Your task to perform on an android device: Go to CNN.com Image 0: 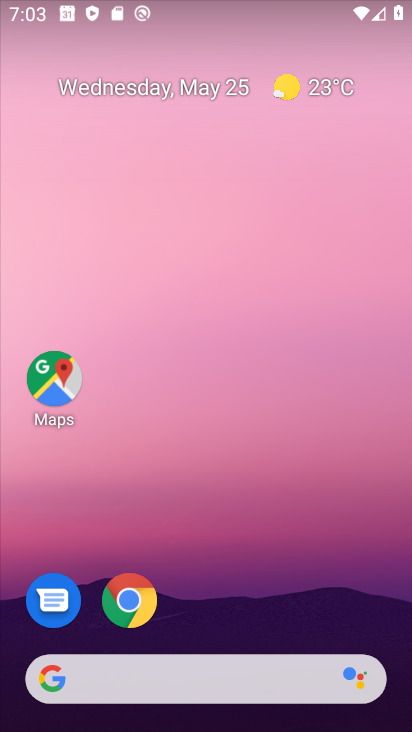
Step 0: click (130, 599)
Your task to perform on an android device: Go to CNN.com Image 1: 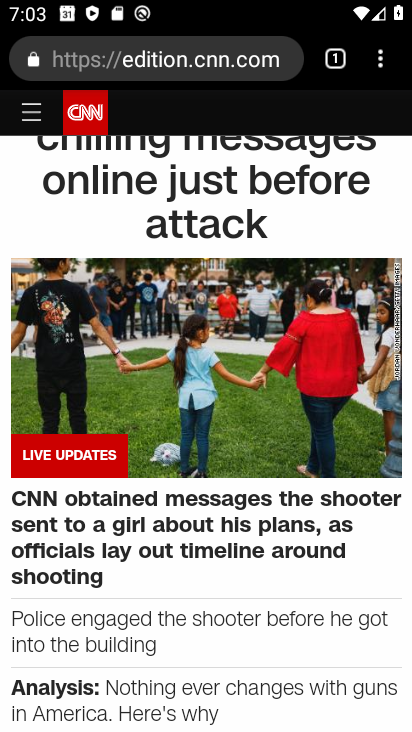
Step 1: click (277, 57)
Your task to perform on an android device: Go to CNN.com Image 2: 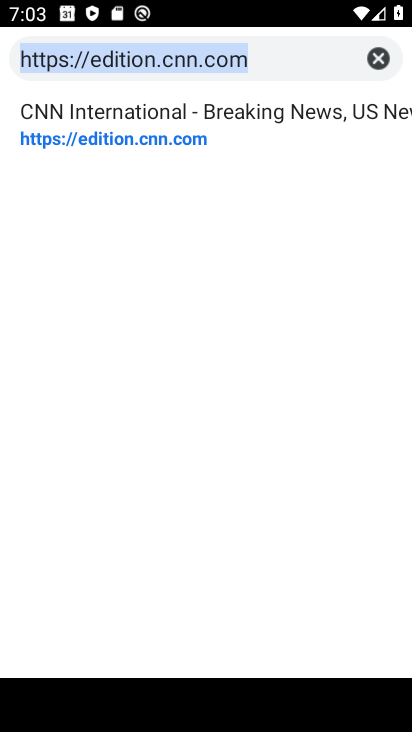
Step 2: click (387, 58)
Your task to perform on an android device: Go to CNN.com Image 3: 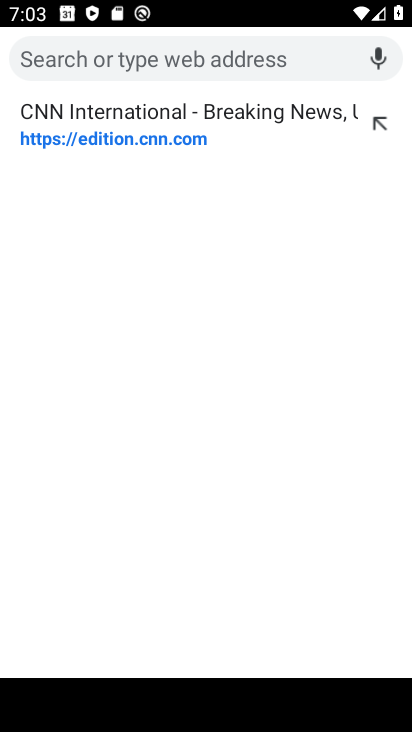
Step 3: click (221, 115)
Your task to perform on an android device: Go to CNN.com Image 4: 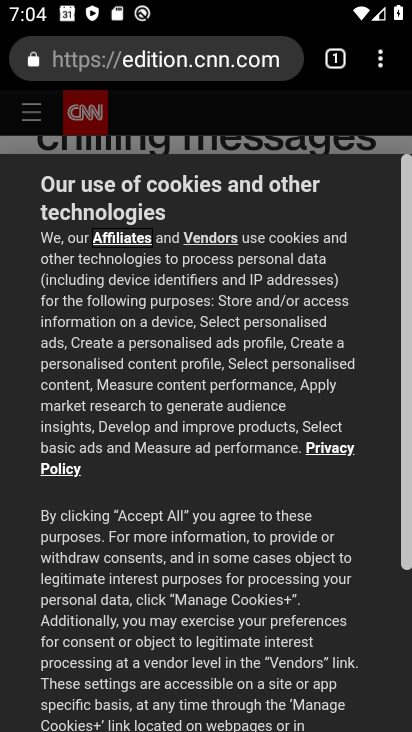
Step 4: task complete